Your task to perform on an android device: see creations saved in the google photos Image 0: 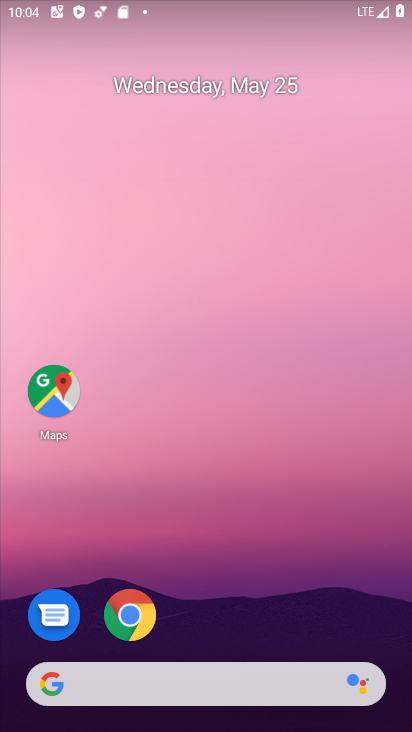
Step 0: drag from (278, 583) to (255, 117)
Your task to perform on an android device: see creations saved in the google photos Image 1: 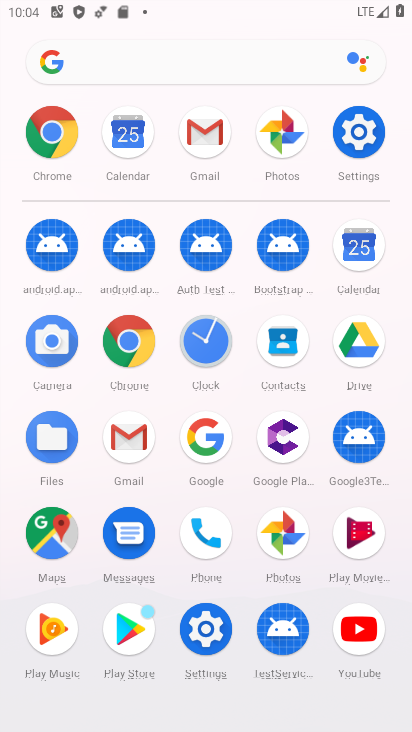
Step 1: click (276, 131)
Your task to perform on an android device: see creations saved in the google photos Image 2: 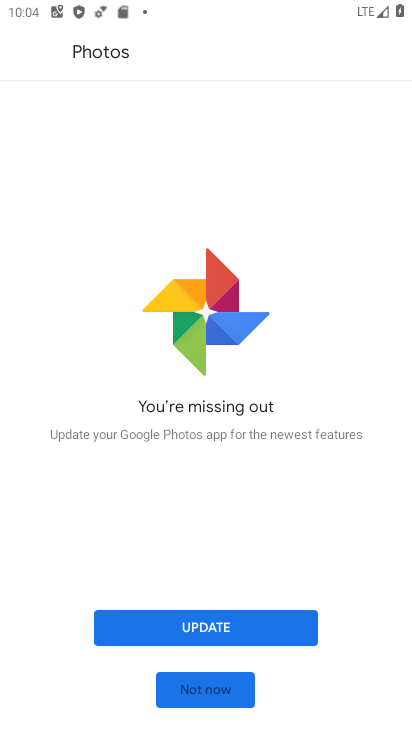
Step 2: click (238, 681)
Your task to perform on an android device: see creations saved in the google photos Image 3: 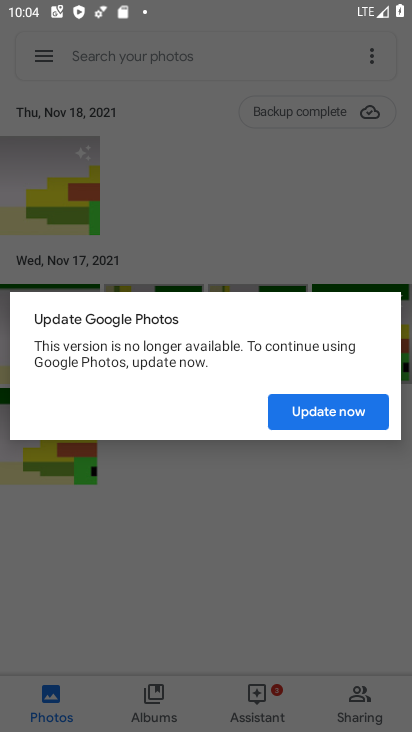
Step 3: click (349, 408)
Your task to perform on an android device: see creations saved in the google photos Image 4: 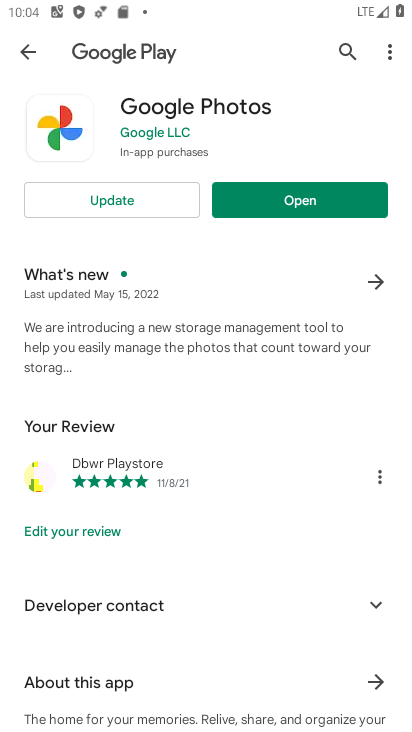
Step 4: click (320, 200)
Your task to perform on an android device: see creations saved in the google photos Image 5: 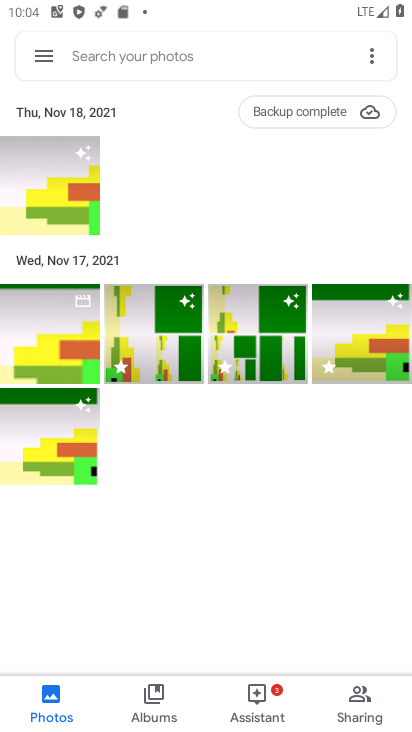
Step 5: click (243, 41)
Your task to perform on an android device: see creations saved in the google photos Image 6: 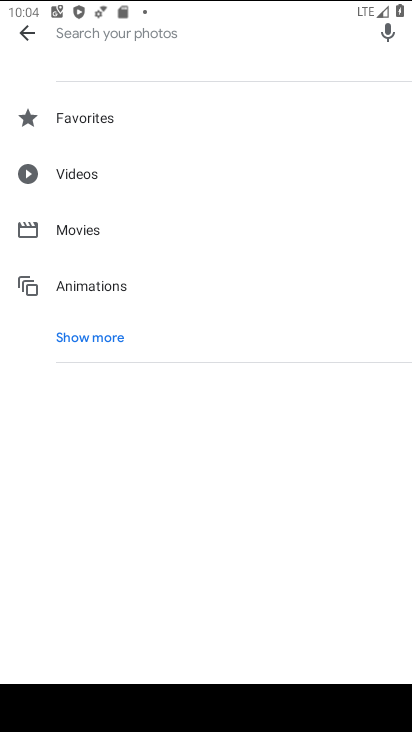
Step 6: click (105, 329)
Your task to perform on an android device: see creations saved in the google photos Image 7: 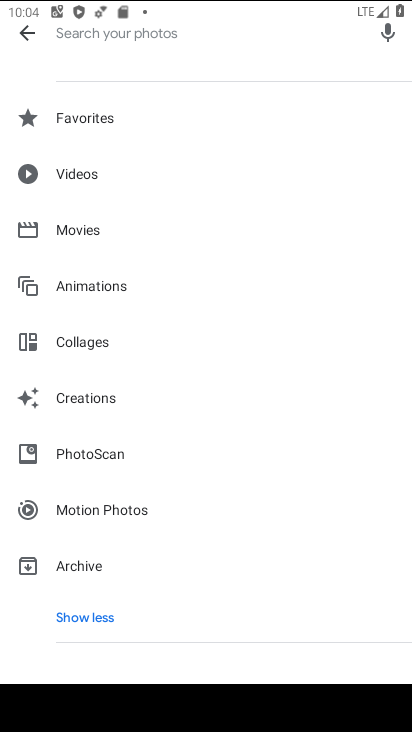
Step 7: click (94, 393)
Your task to perform on an android device: see creations saved in the google photos Image 8: 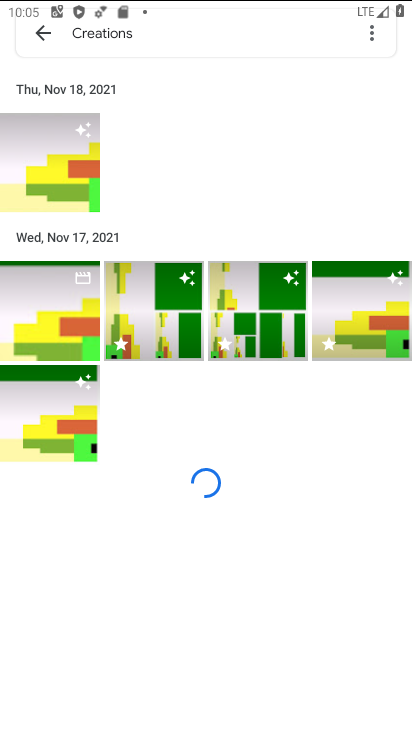
Step 8: task complete